Your task to perform on an android device: turn on airplane mode Image 0: 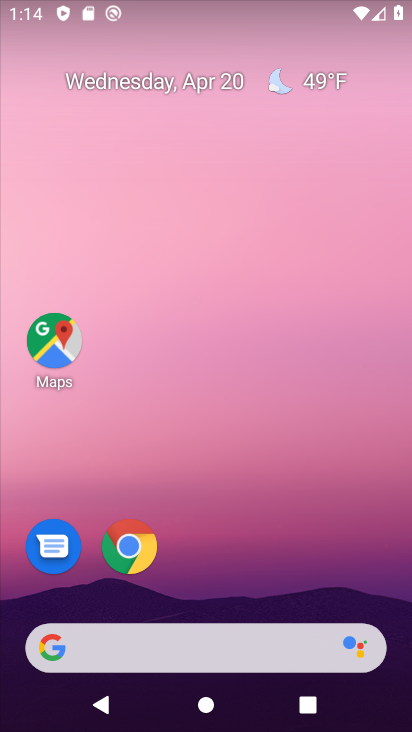
Step 0: drag from (250, 519) to (328, 228)
Your task to perform on an android device: turn on airplane mode Image 1: 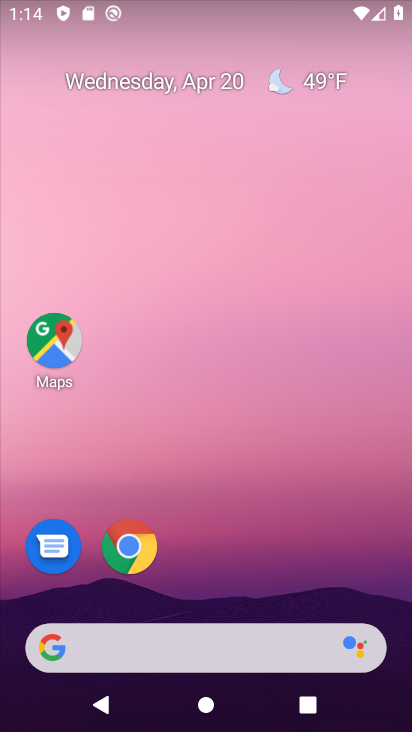
Step 1: drag from (267, 531) to (341, 77)
Your task to perform on an android device: turn on airplane mode Image 2: 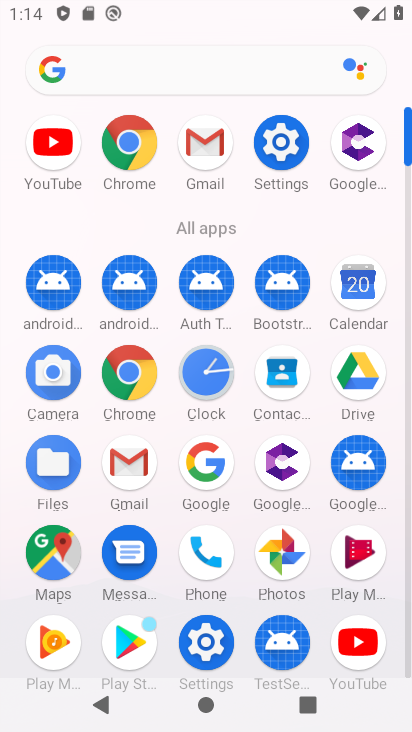
Step 2: click (274, 132)
Your task to perform on an android device: turn on airplane mode Image 3: 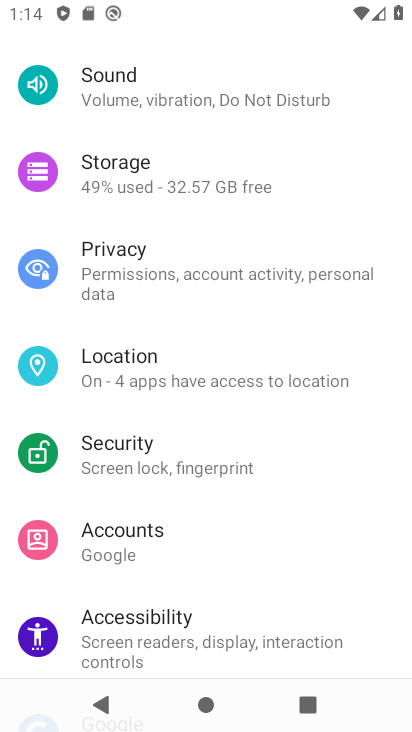
Step 3: drag from (247, 130) to (277, 641)
Your task to perform on an android device: turn on airplane mode Image 4: 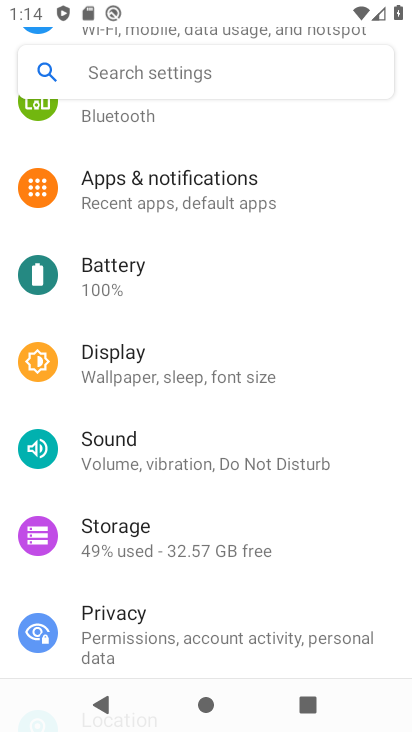
Step 4: drag from (239, 180) to (269, 629)
Your task to perform on an android device: turn on airplane mode Image 5: 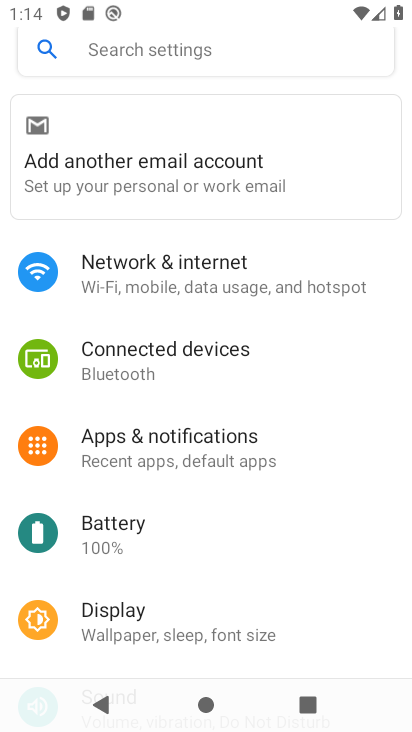
Step 5: click (256, 297)
Your task to perform on an android device: turn on airplane mode Image 6: 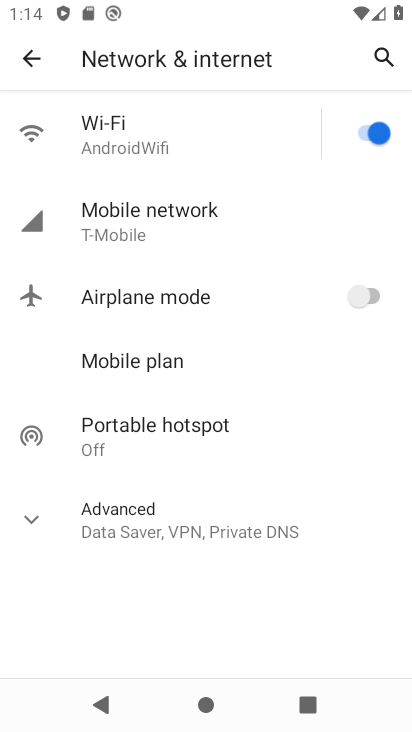
Step 6: click (375, 303)
Your task to perform on an android device: turn on airplane mode Image 7: 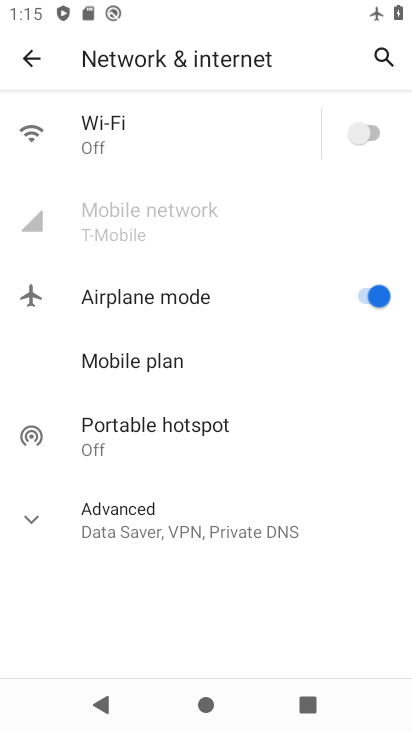
Step 7: task complete